Your task to perform on an android device: all mails in gmail Image 0: 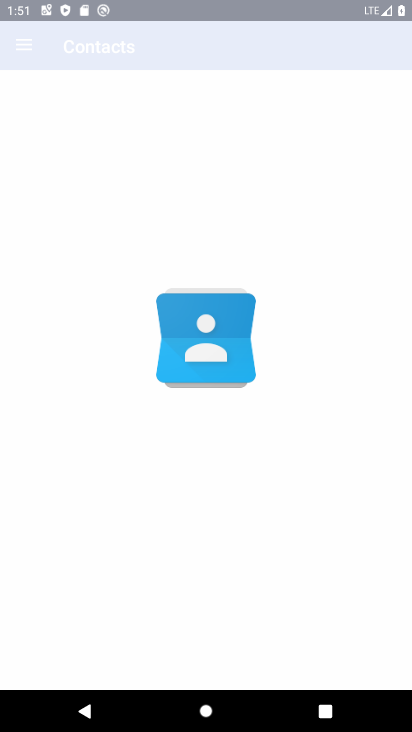
Step 0: drag from (247, 575) to (259, 175)
Your task to perform on an android device: all mails in gmail Image 1: 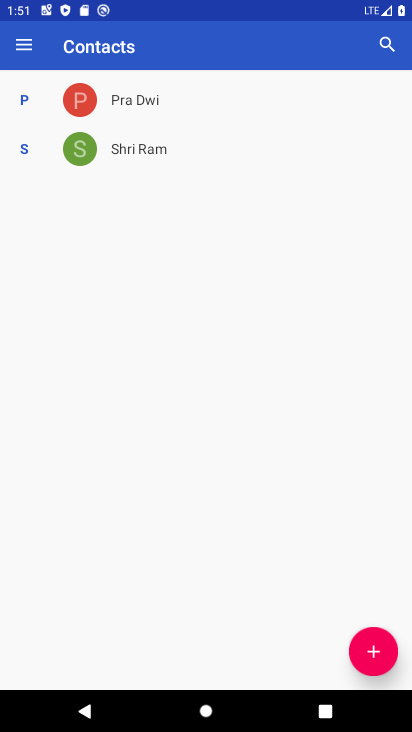
Step 1: press home button
Your task to perform on an android device: all mails in gmail Image 2: 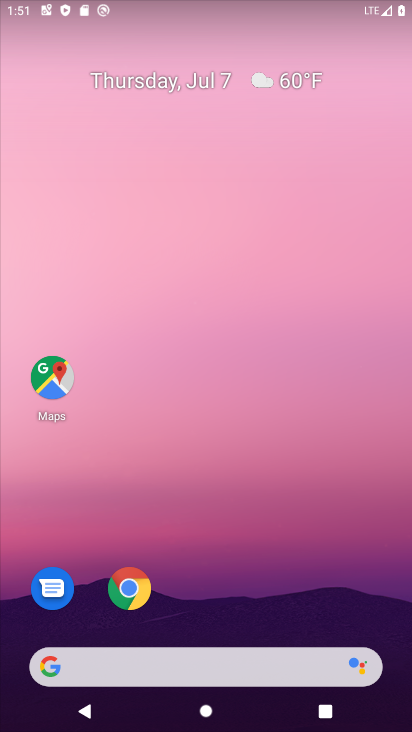
Step 2: drag from (256, 643) to (266, 188)
Your task to perform on an android device: all mails in gmail Image 3: 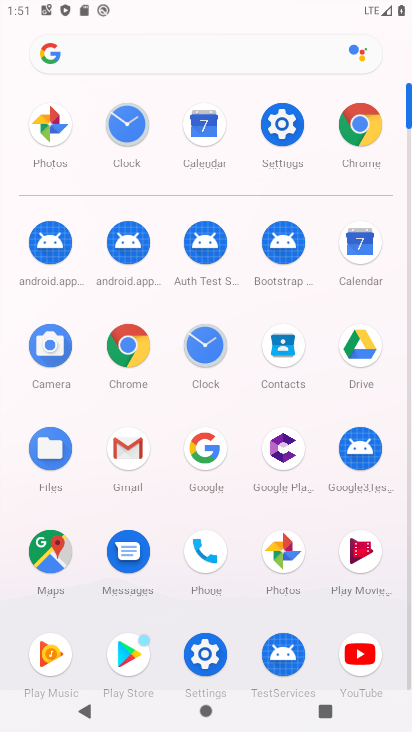
Step 3: click (120, 451)
Your task to perform on an android device: all mails in gmail Image 4: 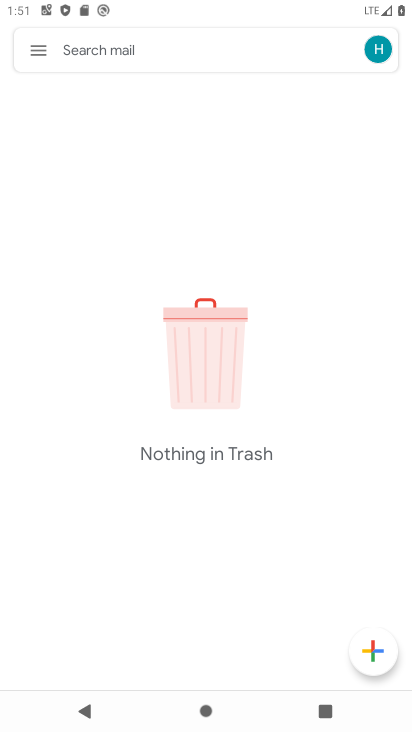
Step 4: click (48, 50)
Your task to perform on an android device: all mails in gmail Image 5: 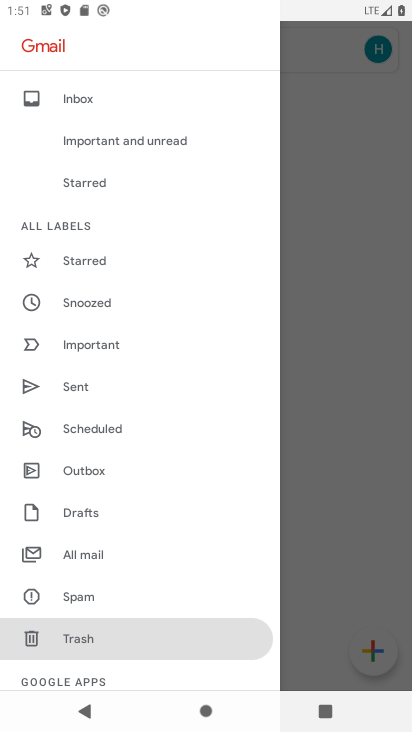
Step 5: click (116, 154)
Your task to perform on an android device: all mails in gmail Image 6: 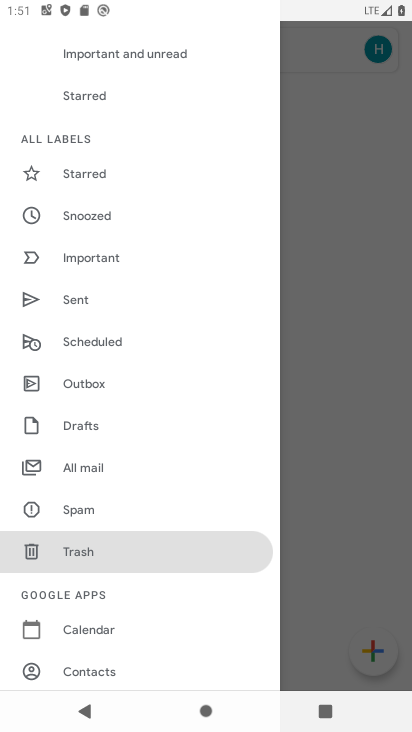
Step 6: click (94, 469)
Your task to perform on an android device: all mails in gmail Image 7: 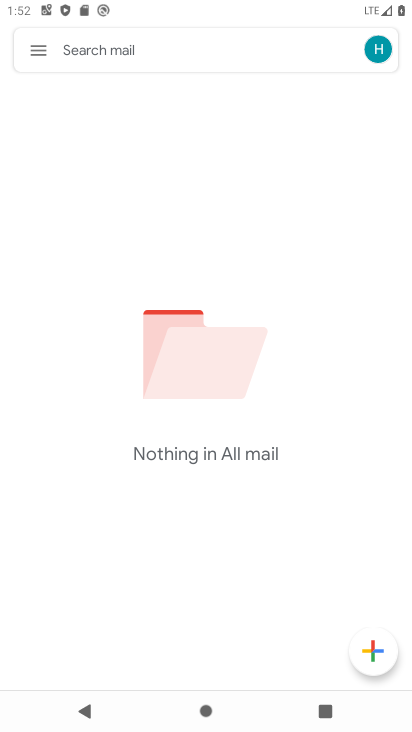
Step 7: task complete